Your task to perform on an android device: stop showing notifications on the lock screen Image 0: 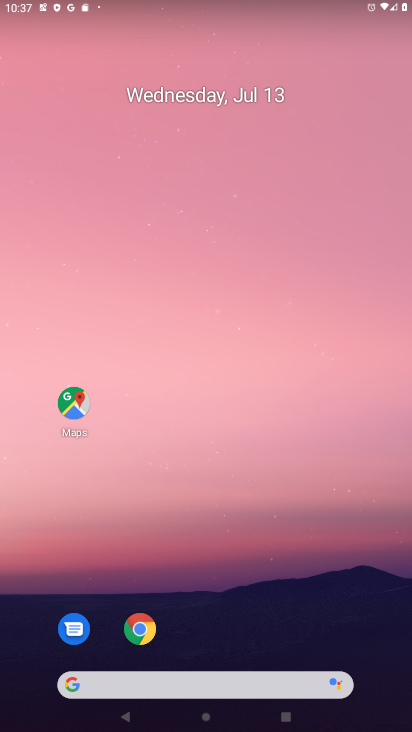
Step 0: drag from (316, 589) to (302, 6)
Your task to perform on an android device: stop showing notifications on the lock screen Image 1: 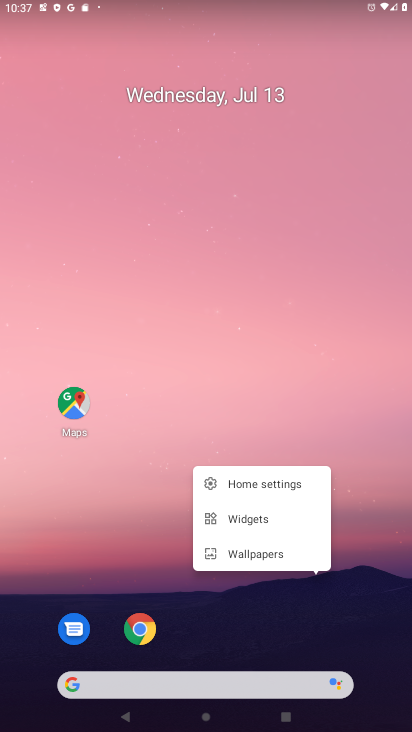
Step 1: click (187, 256)
Your task to perform on an android device: stop showing notifications on the lock screen Image 2: 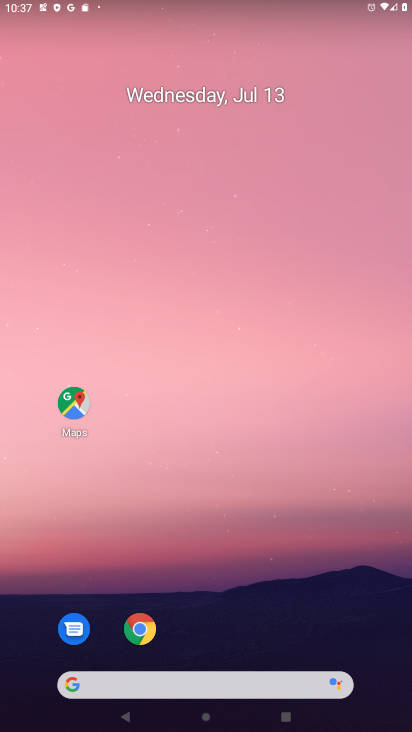
Step 2: drag from (217, 641) to (237, 118)
Your task to perform on an android device: stop showing notifications on the lock screen Image 3: 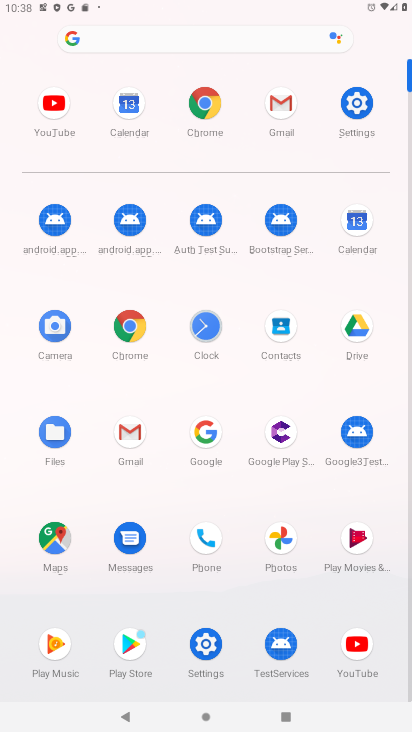
Step 3: click (356, 110)
Your task to perform on an android device: stop showing notifications on the lock screen Image 4: 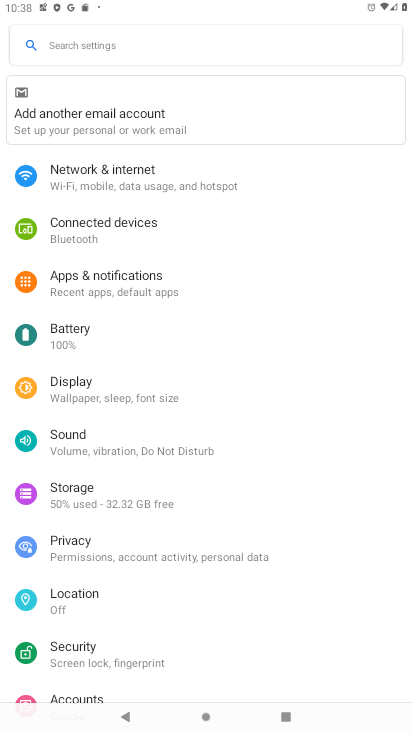
Step 4: click (215, 296)
Your task to perform on an android device: stop showing notifications on the lock screen Image 5: 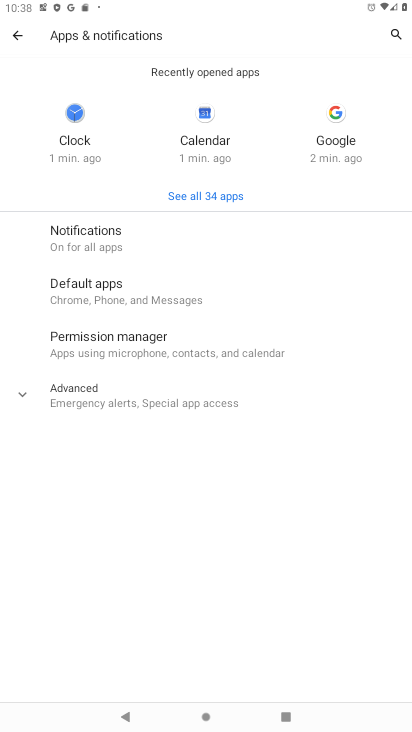
Step 5: click (161, 386)
Your task to perform on an android device: stop showing notifications on the lock screen Image 6: 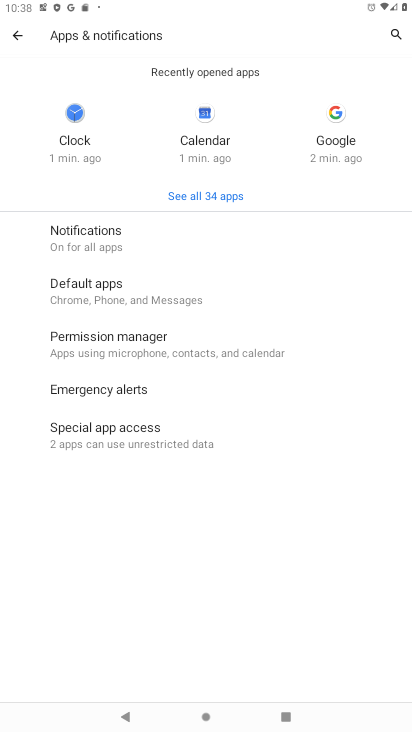
Step 6: click (161, 250)
Your task to perform on an android device: stop showing notifications on the lock screen Image 7: 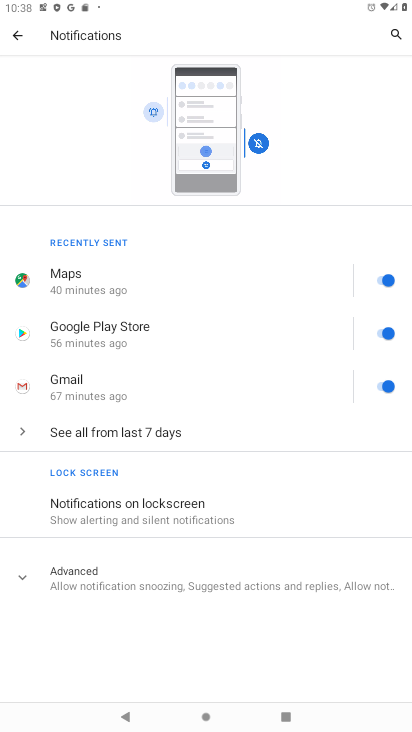
Step 7: click (100, 502)
Your task to perform on an android device: stop showing notifications on the lock screen Image 8: 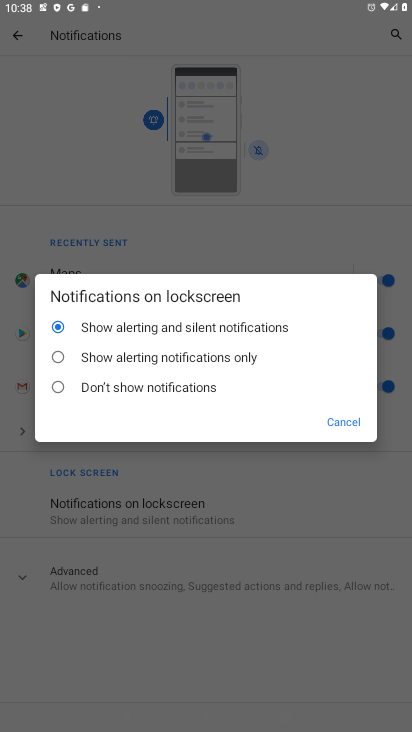
Step 8: click (230, 364)
Your task to perform on an android device: stop showing notifications on the lock screen Image 9: 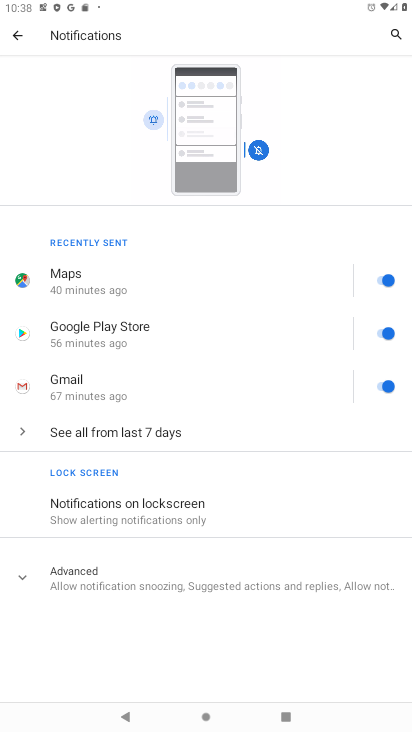
Step 9: task complete